Your task to perform on an android device: check android version Image 0: 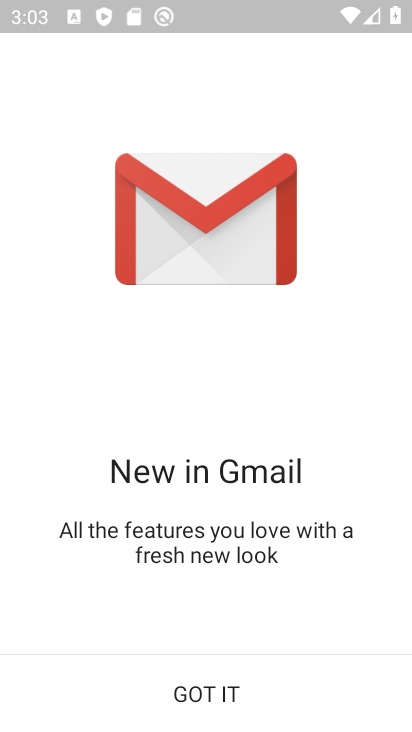
Step 0: click (209, 700)
Your task to perform on an android device: check android version Image 1: 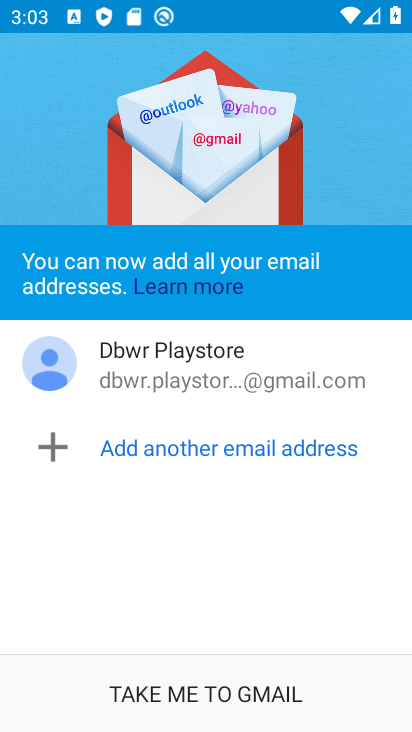
Step 1: press home button
Your task to perform on an android device: check android version Image 2: 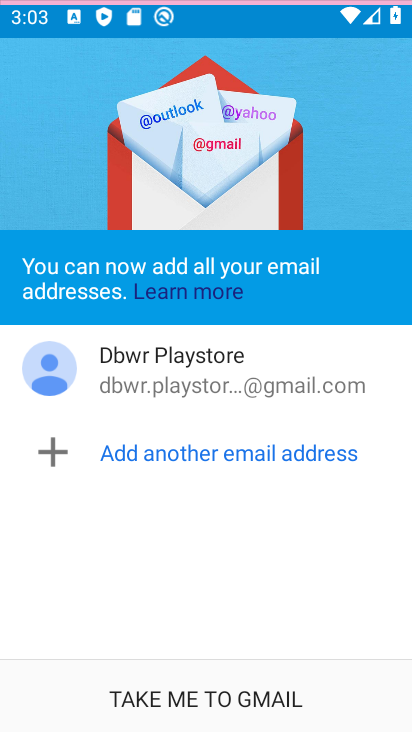
Step 2: press home button
Your task to perform on an android device: check android version Image 3: 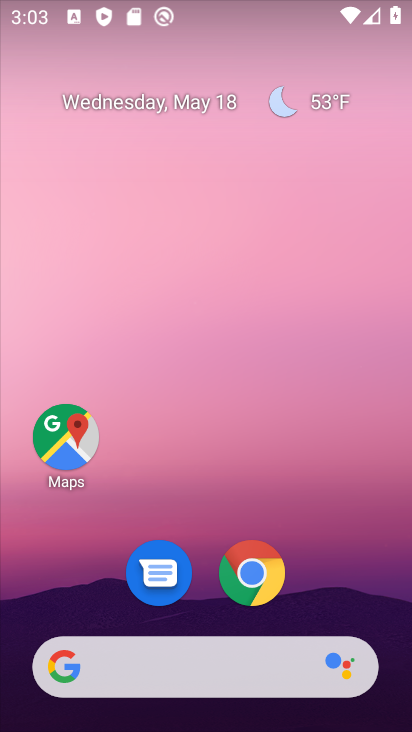
Step 3: drag from (203, 614) to (217, 180)
Your task to perform on an android device: check android version Image 4: 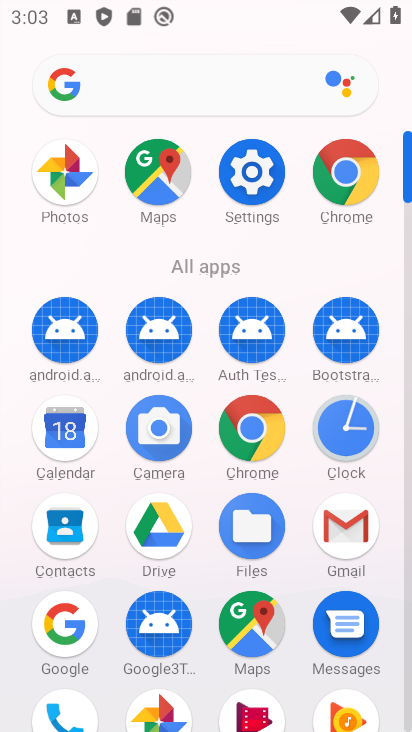
Step 4: click (252, 145)
Your task to perform on an android device: check android version Image 5: 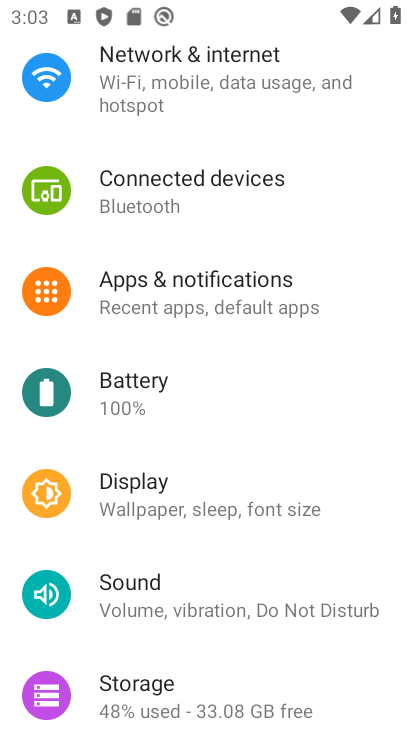
Step 5: drag from (195, 639) to (233, 232)
Your task to perform on an android device: check android version Image 6: 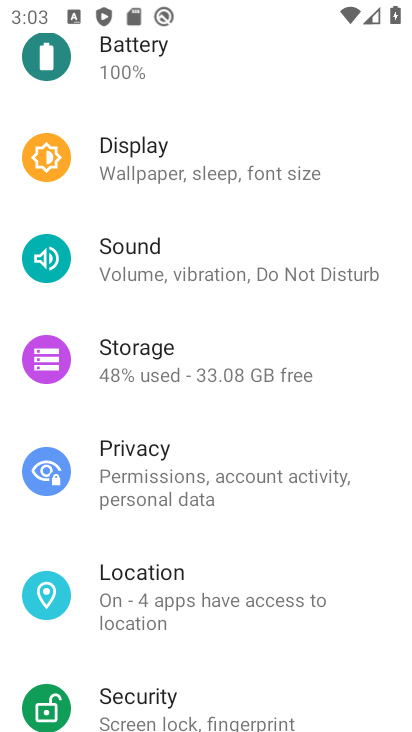
Step 6: drag from (190, 588) to (237, 251)
Your task to perform on an android device: check android version Image 7: 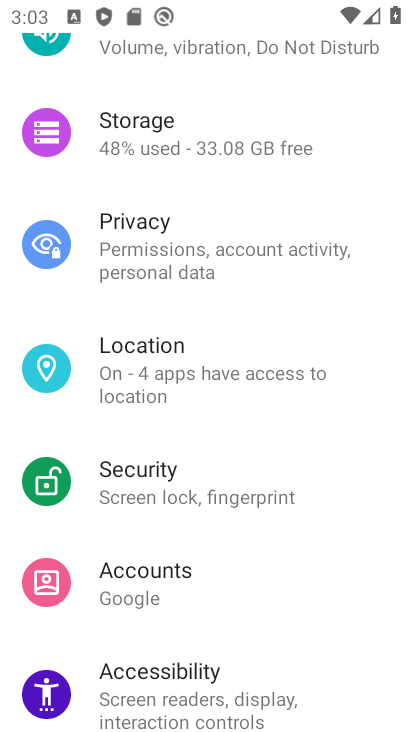
Step 7: drag from (192, 611) to (272, 273)
Your task to perform on an android device: check android version Image 8: 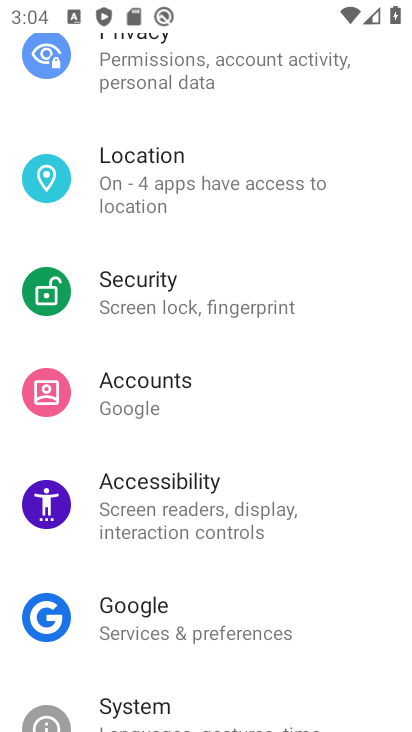
Step 8: drag from (207, 673) to (253, 300)
Your task to perform on an android device: check android version Image 9: 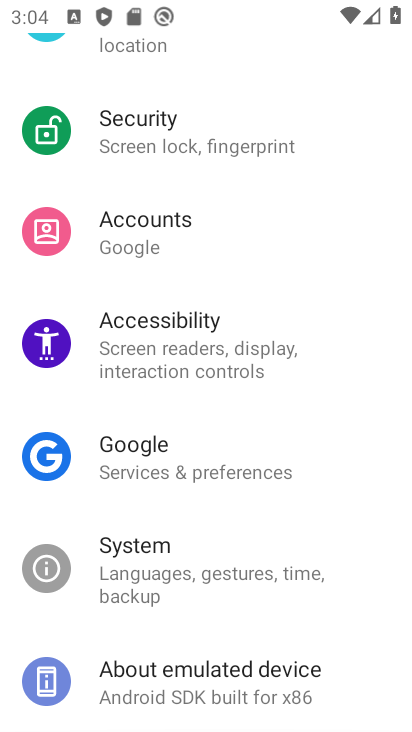
Step 9: click (195, 669)
Your task to perform on an android device: check android version Image 10: 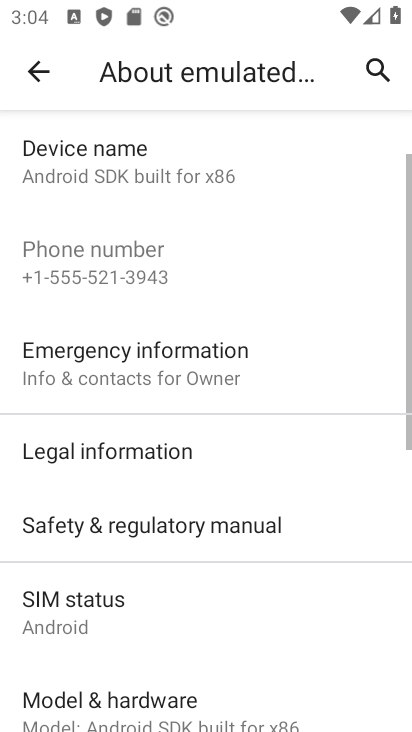
Step 10: drag from (158, 620) to (222, 327)
Your task to perform on an android device: check android version Image 11: 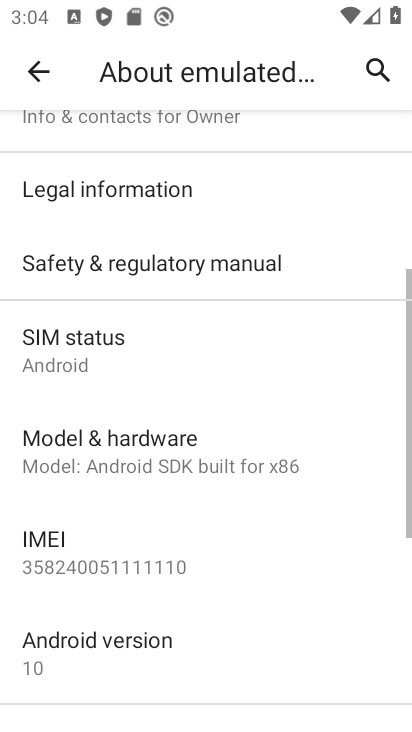
Step 11: click (98, 648)
Your task to perform on an android device: check android version Image 12: 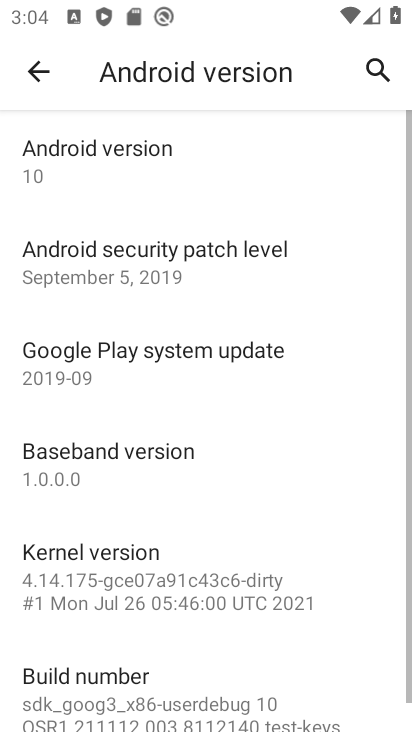
Step 12: click (138, 172)
Your task to perform on an android device: check android version Image 13: 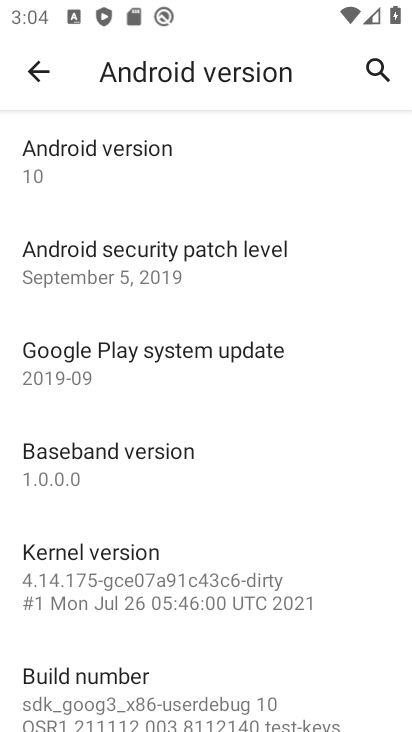
Step 13: task complete